Your task to perform on an android device: Show me popular games on the Play Store Image 0: 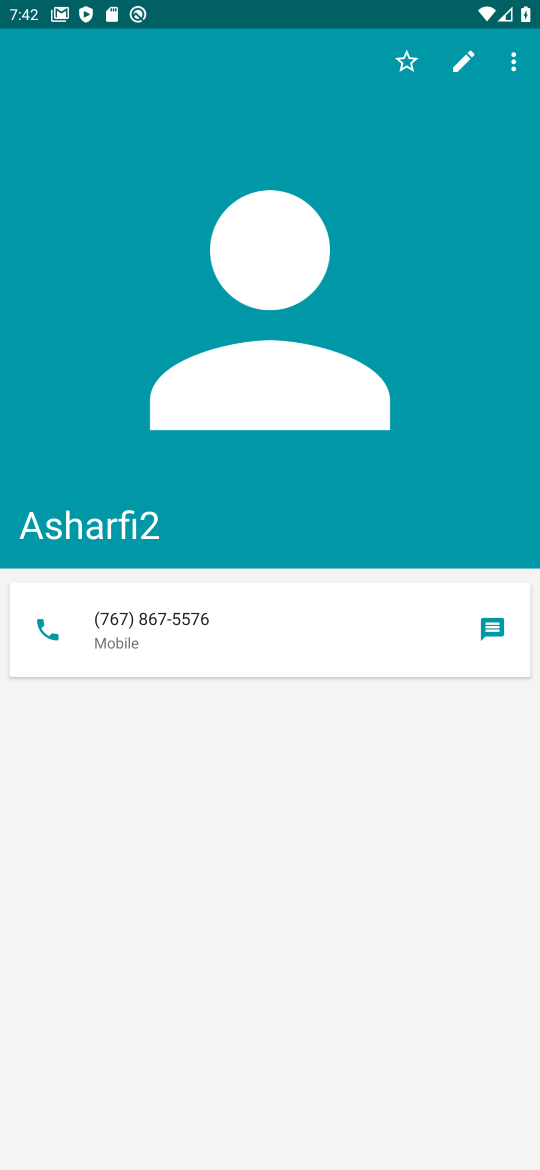
Step 0: press home button
Your task to perform on an android device: Show me popular games on the Play Store Image 1: 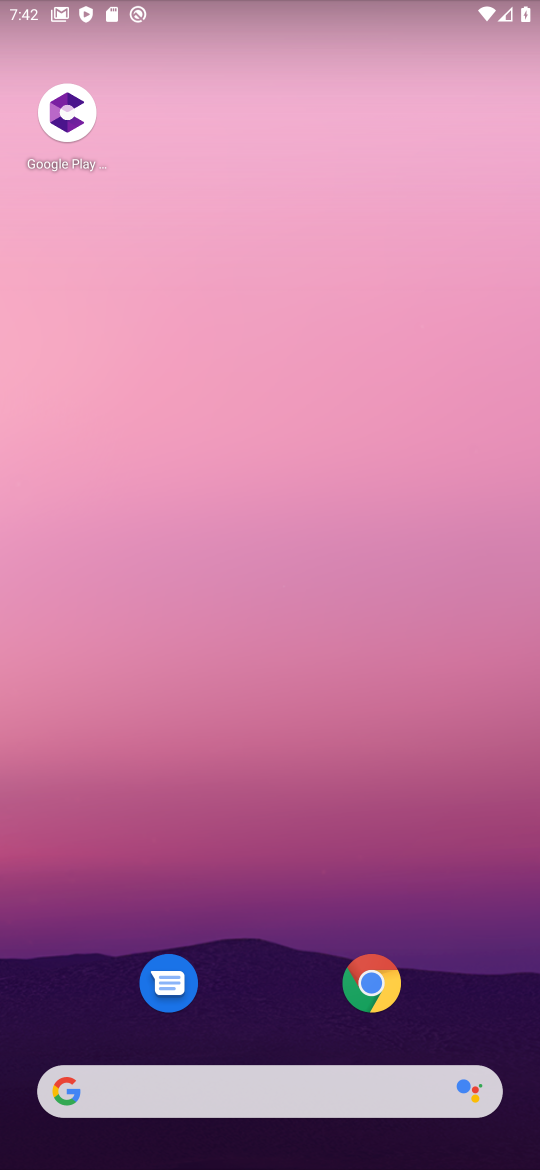
Step 1: drag from (448, 1047) to (410, 212)
Your task to perform on an android device: Show me popular games on the Play Store Image 2: 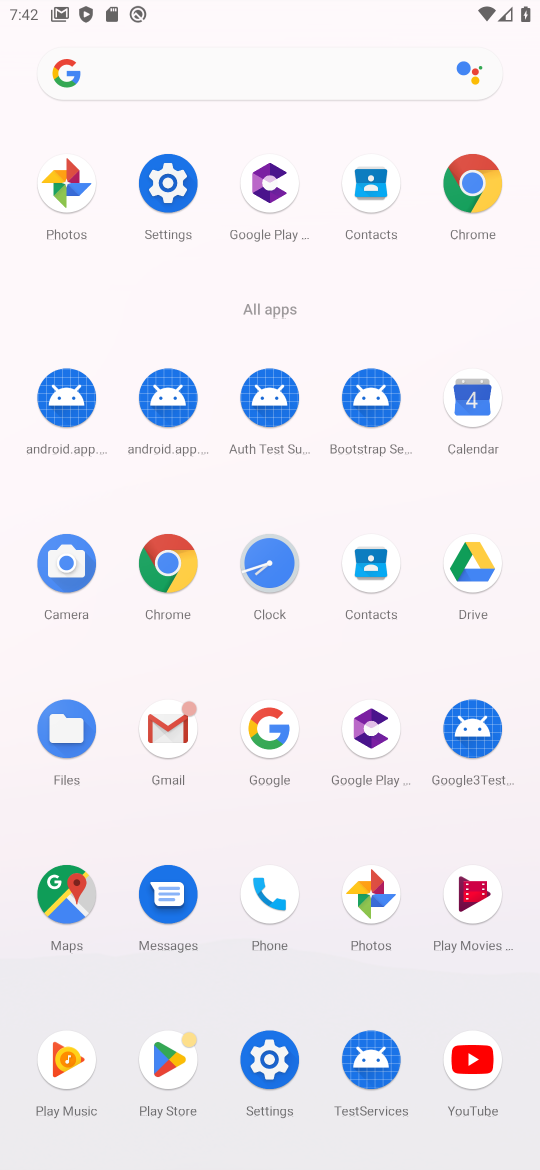
Step 2: click (157, 1072)
Your task to perform on an android device: Show me popular games on the Play Store Image 3: 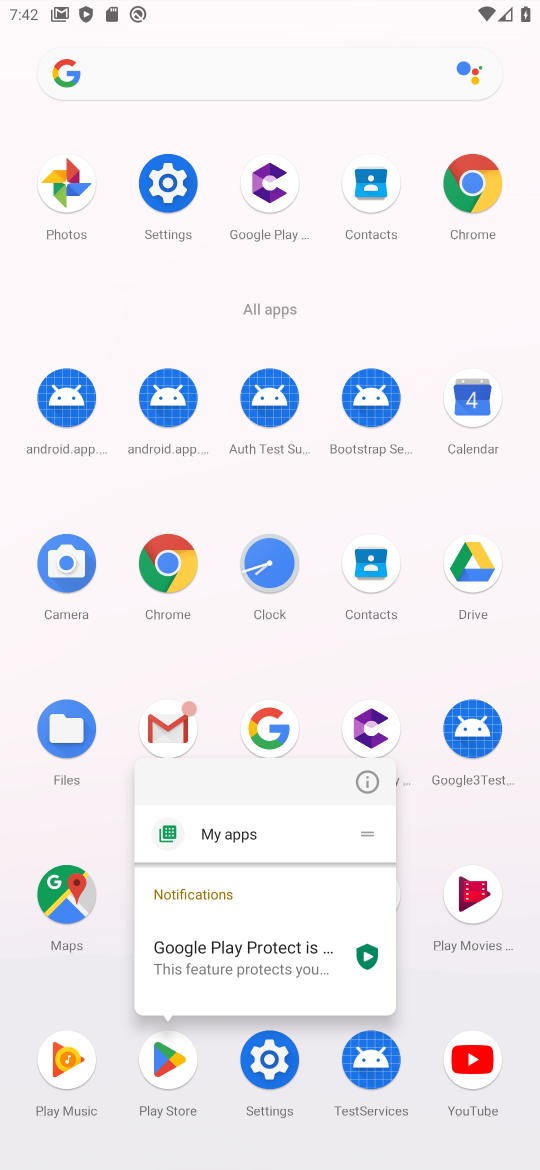
Step 3: click (176, 1067)
Your task to perform on an android device: Show me popular games on the Play Store Image 4: 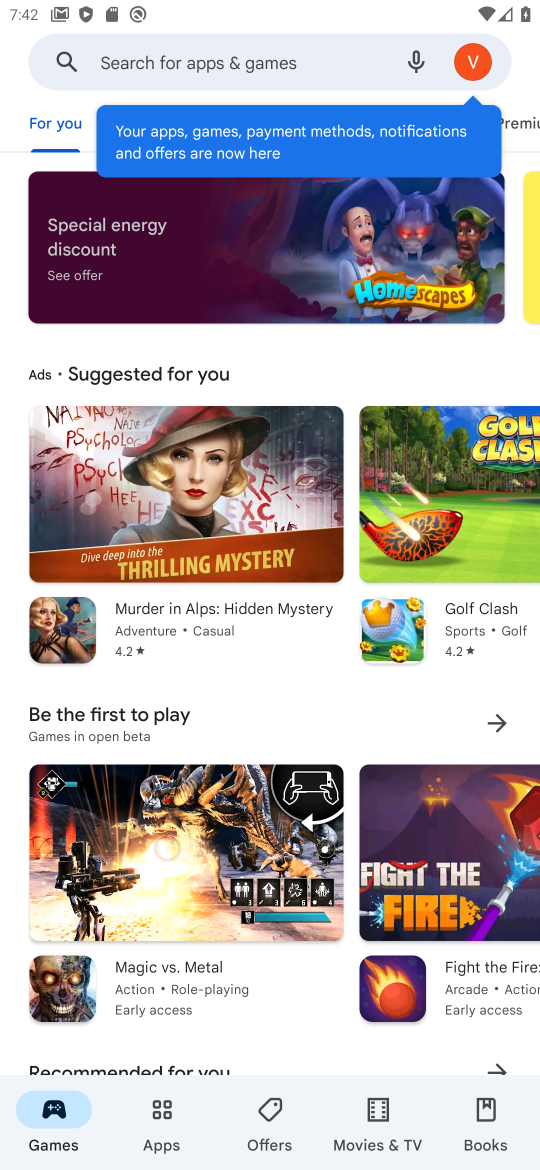
Step 4: click (201, 59)
Your task to perform on an android device: Show me popular games on the Play Store Image 5: 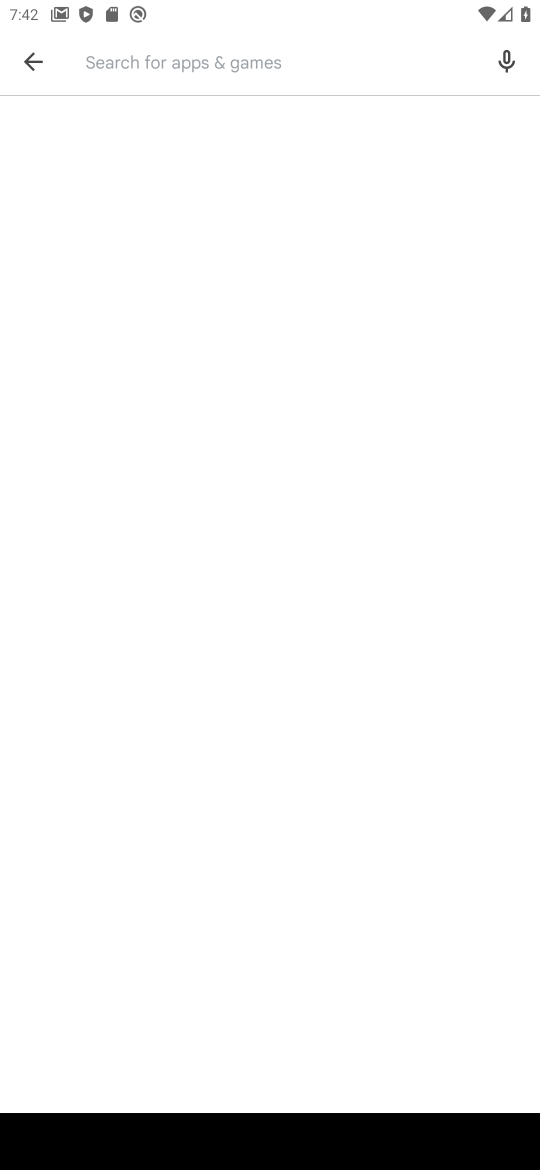
Step 5: press back button
Your task to perform on an android device: Show me popular games on the Play Store Image 6: 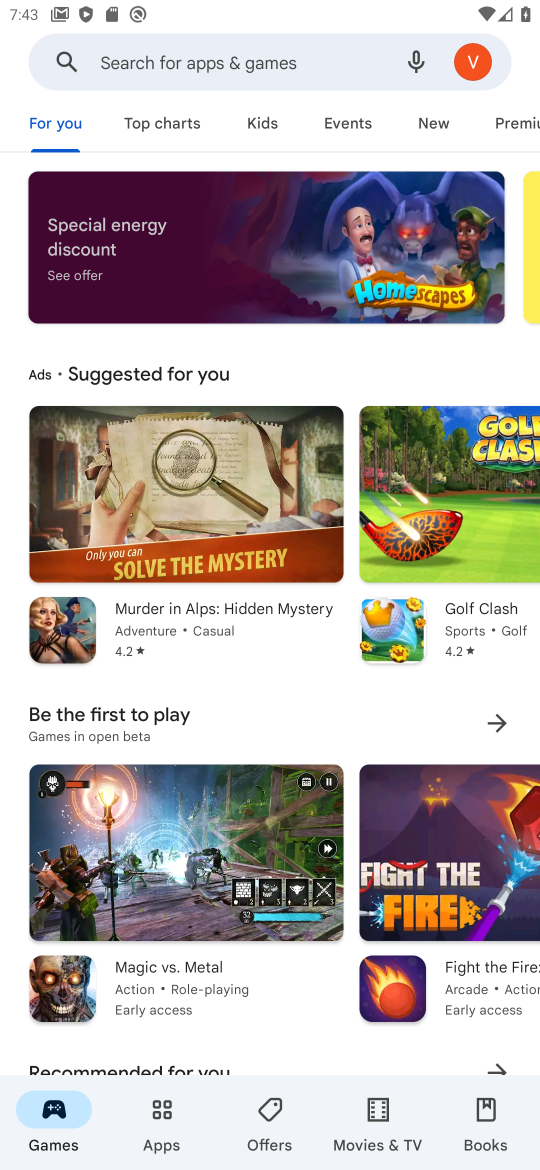
Step 6: drag from (500, 130) to (183, 131)
Your task to perform on an android device: Show me popular games on the Play Store Image 7: 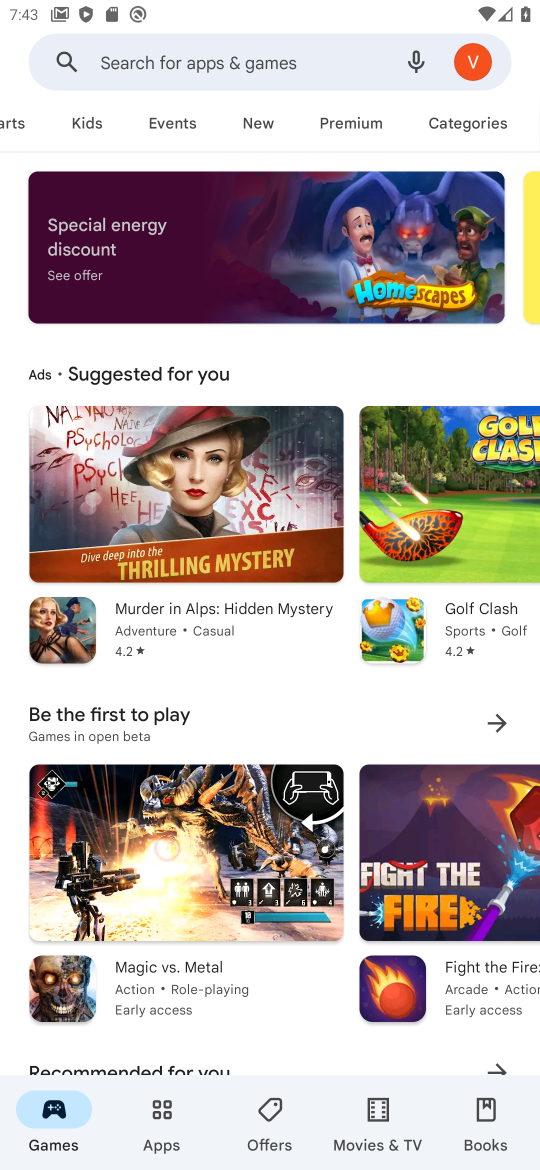
Step 7: click (472, 130)
Your task to perform on an android device: Show me popular games on the Play Store Image 8: 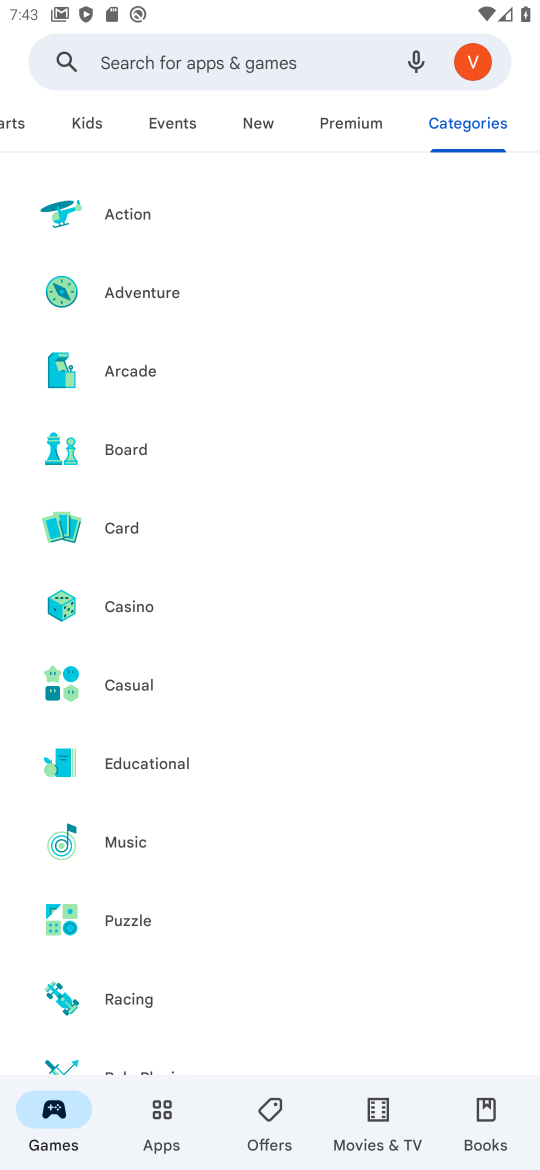
Step 8: drag from (153, 857) to (214, 250)
Your task to perform on an android device: Show me popular games on the Play Store Image 9: 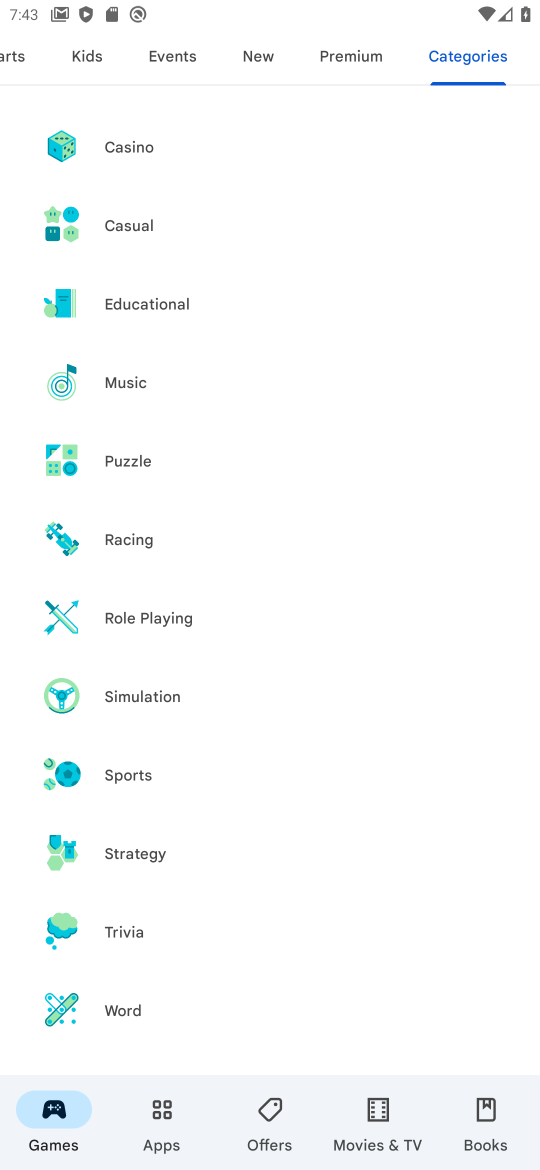
Step 9: drag from (267, 909) to (310, 540)
Your task to perform on an android device: Show me popular games on the Play Store Image 10: 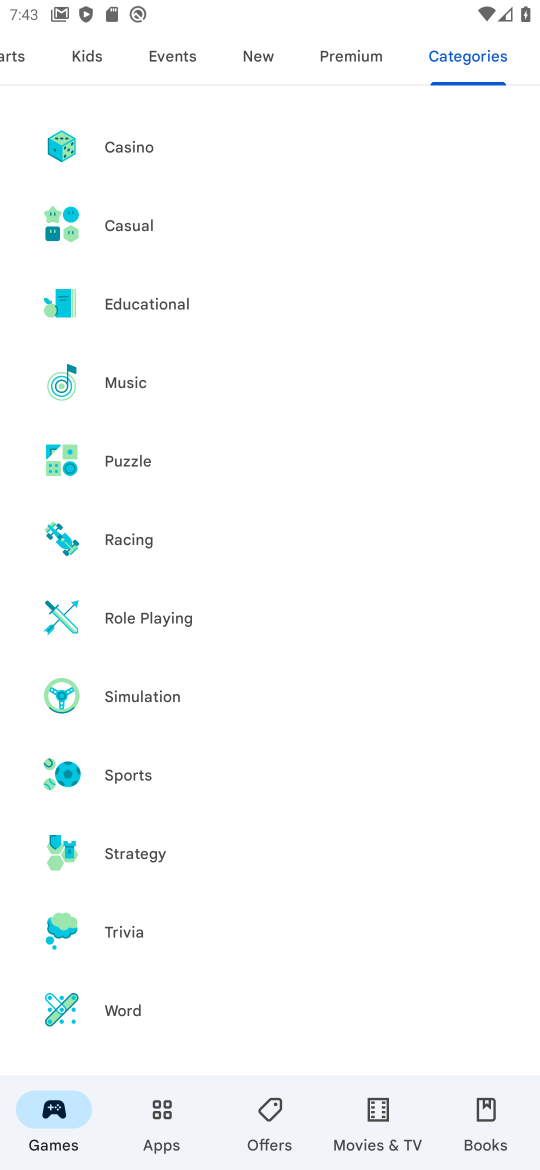
Step 10: click (143, 770)
Your task to perform on an android device: Show me popular games on the Play Store Image 11: 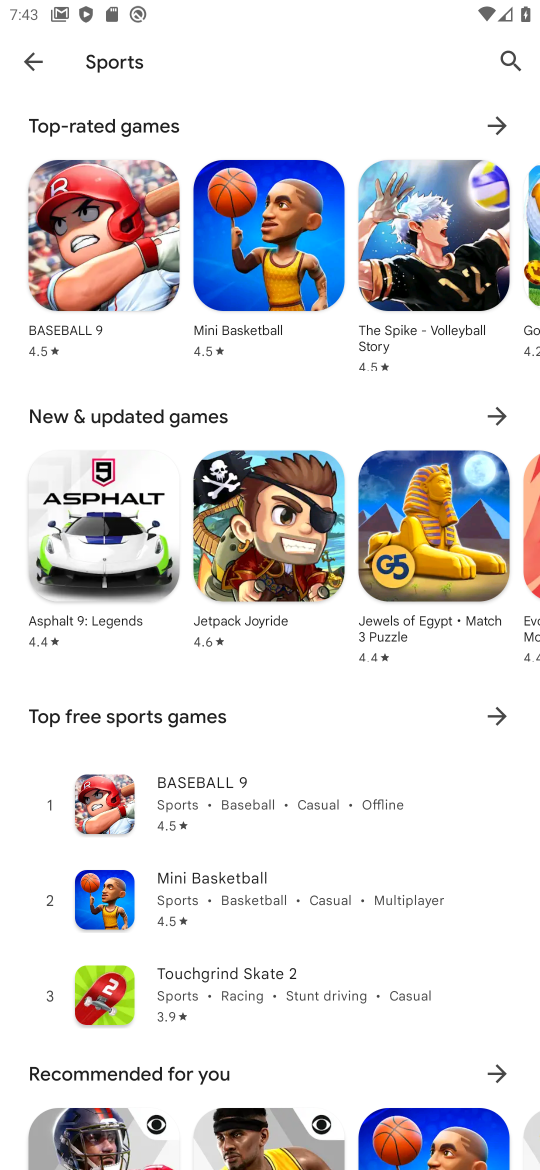
Step 11: task complete